Your task to perform on an android device: see sites visited before in the chrome app Image 0: 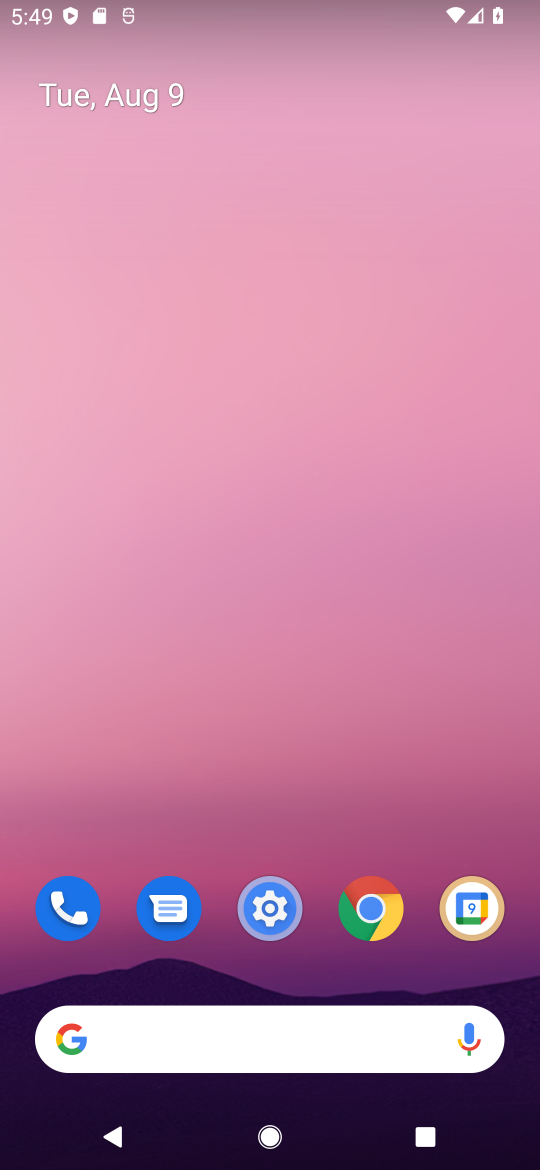
Step 0: click (378, 906)
Your task to perform on an android device: see sites visited before in the chrome app Image 1: 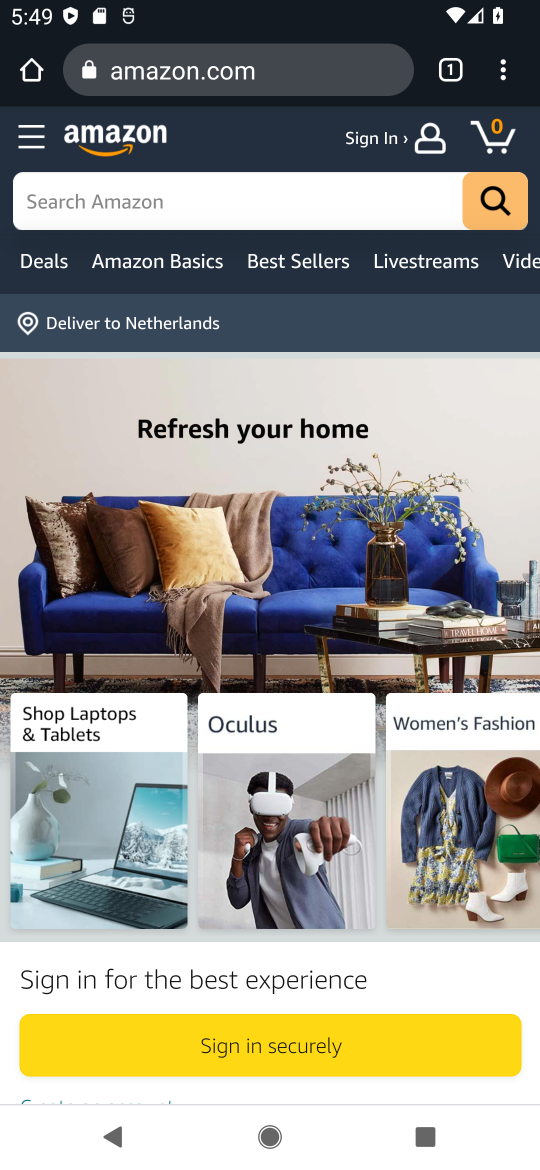
Step 1: click (505, 76)
Your task to perform on an android device: see sites visited before in the chrome app Image 2: 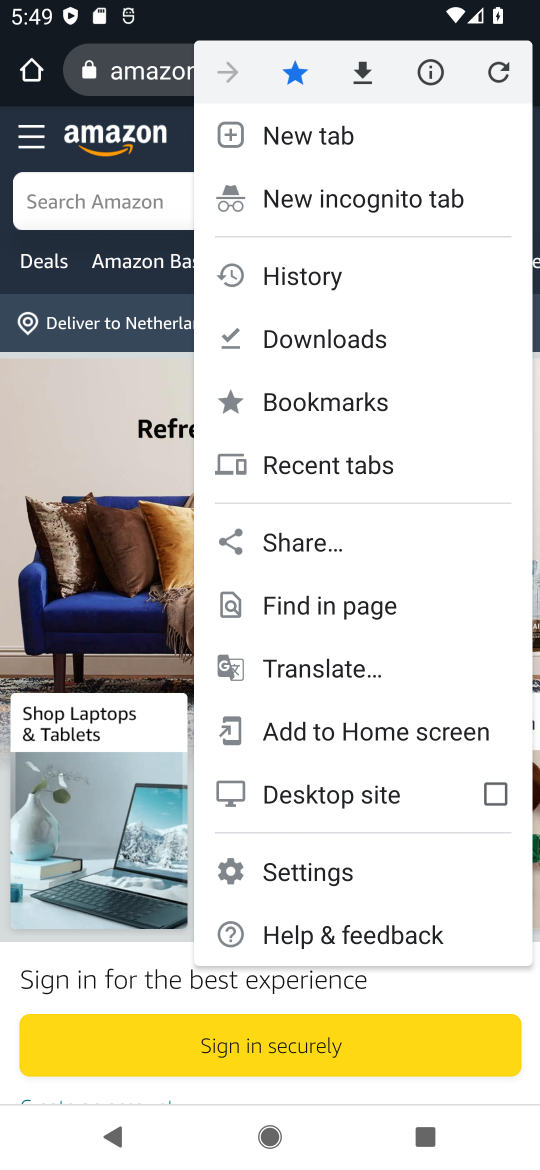
Step 2: click (362, 458)
Your task to perform on an android device: see sites visited before in the chrome app Image 3: 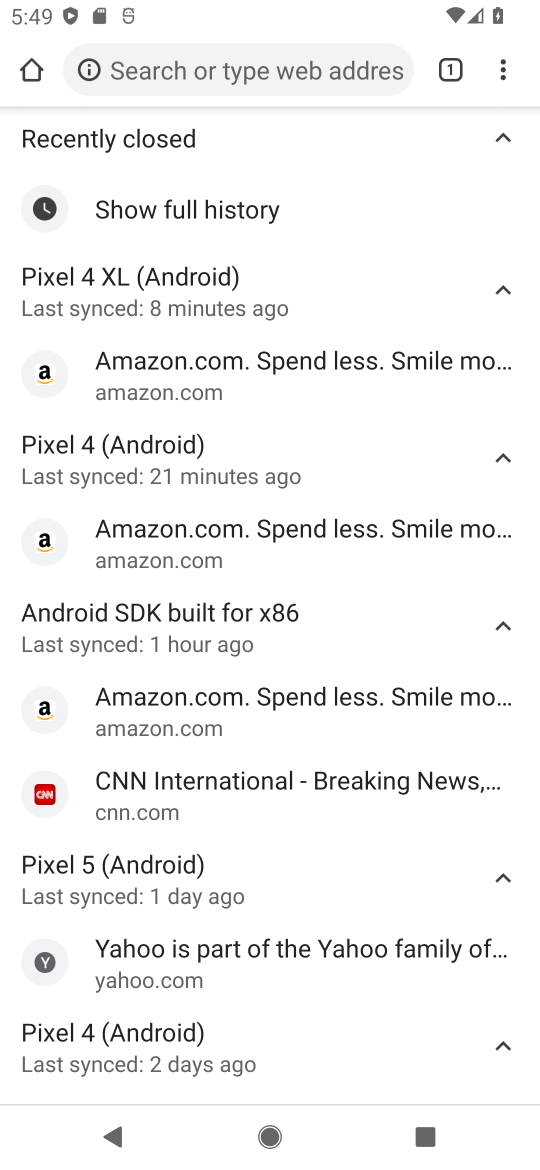
Step 3: task complete